Your task to perform on an android device: empty trash in the gmail app Image 0: 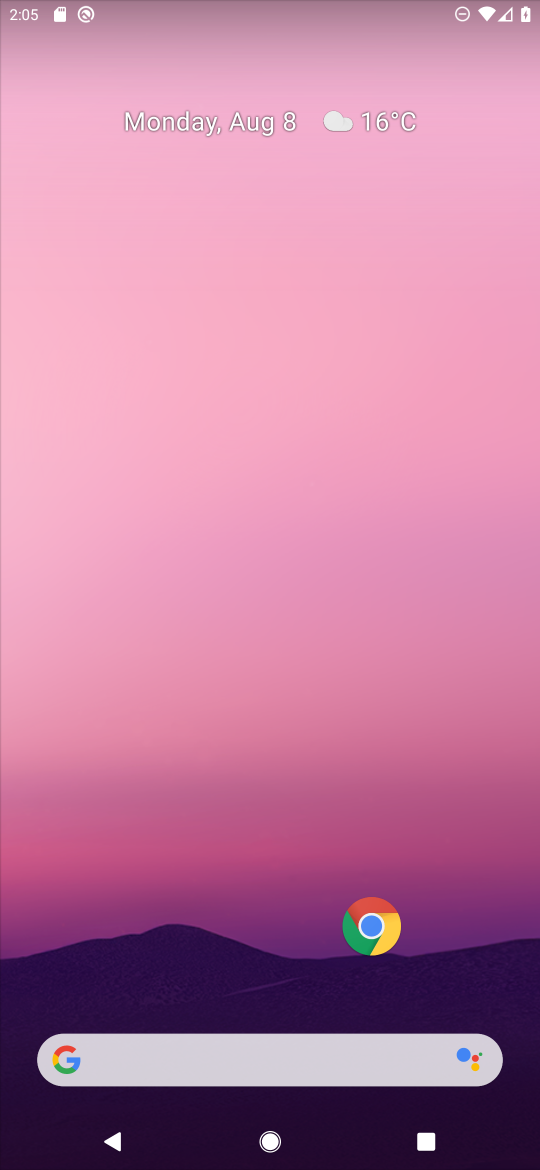
Step 0: drag from (217, 986) to (314, 189)
Your task to perform on an android device: empty trash in the gmail app Image 1: 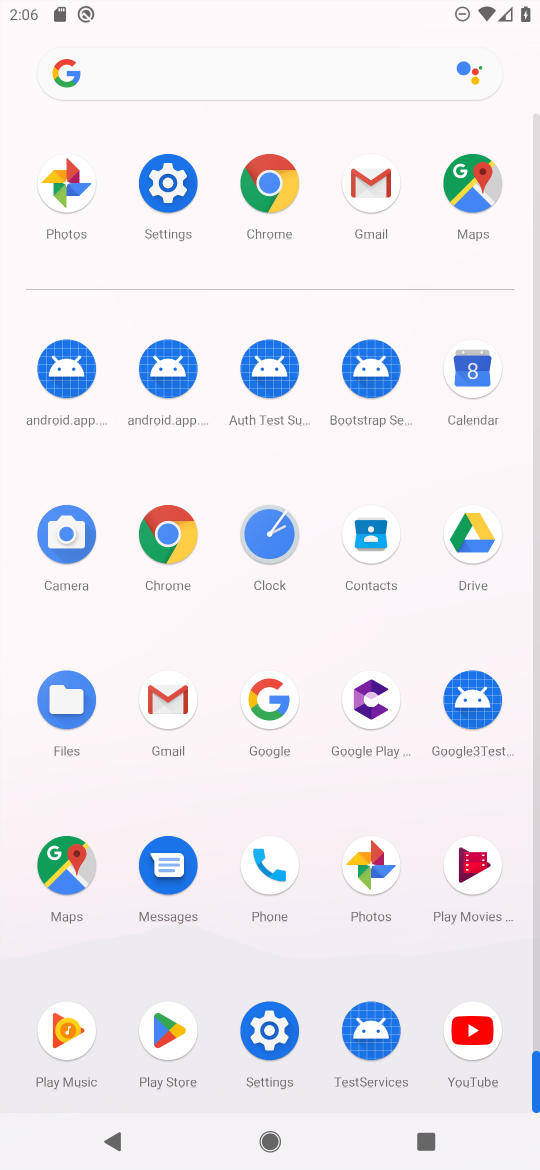
Step 1: click (163, 711)
Your task to perform on an android device: empty trash in the gmail app Image 2: 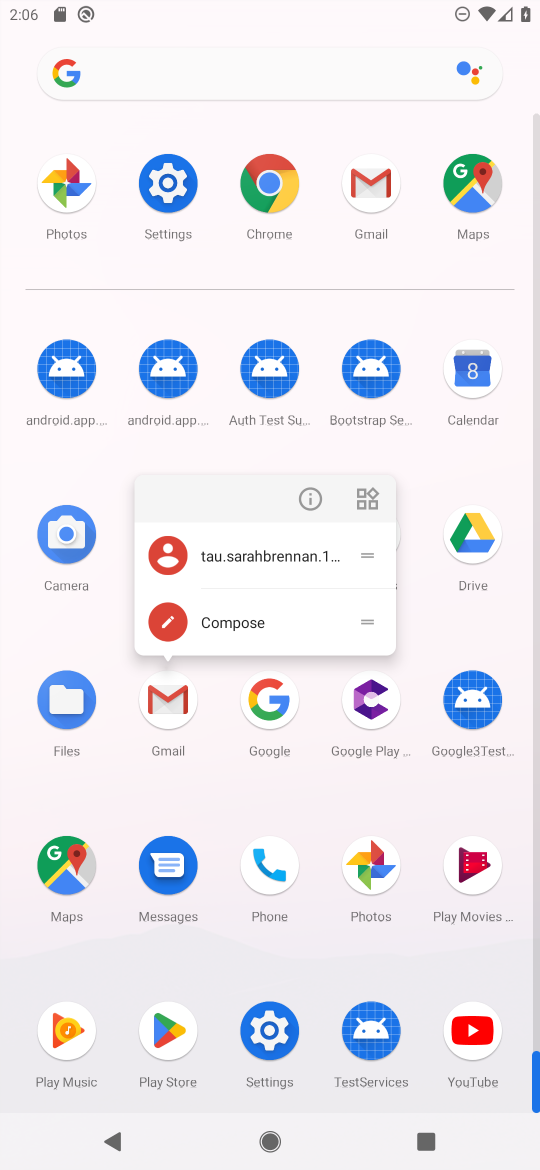
Step 2: click (163, 684)
Your task to perform on an android device: empty trash in the gmail app Image 3: 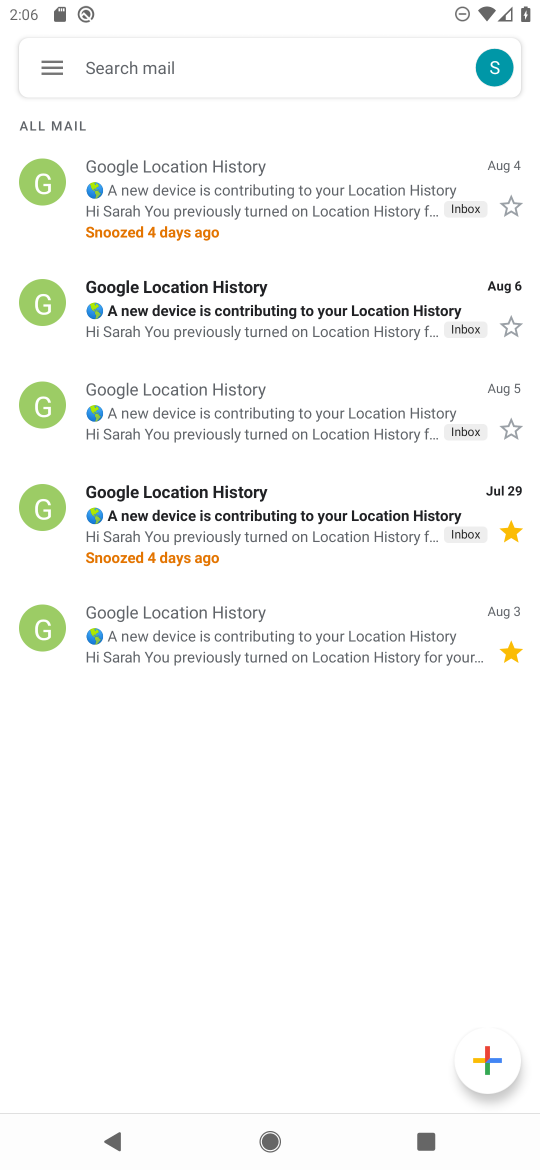
Step 3: click (43, 71)
Your task to perform on an android device: empty trash in the gmail app Image 4: 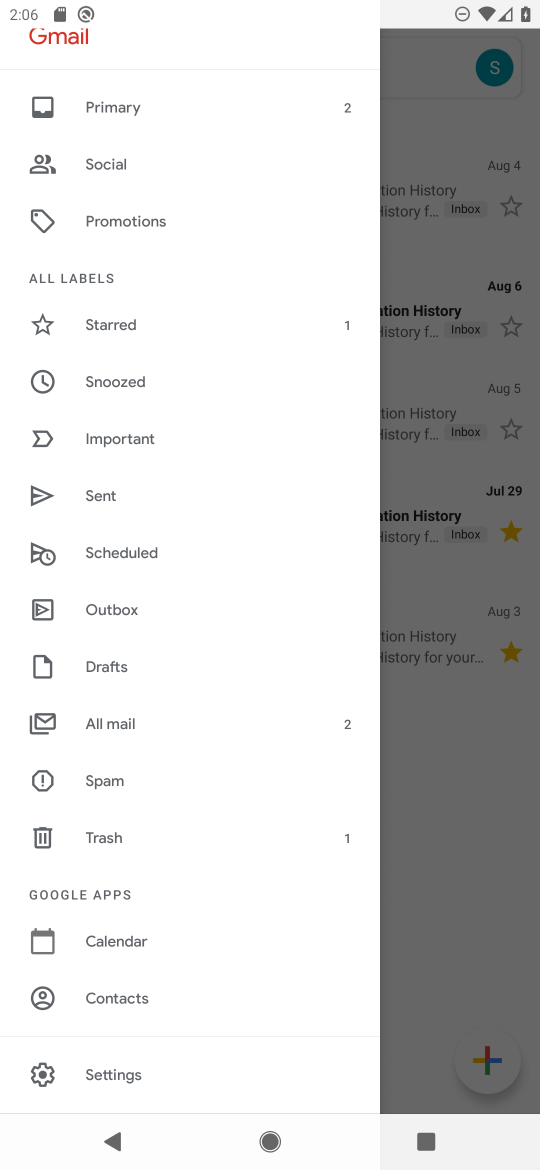
Step 4: click (125, 843)
Your task to perform on an android device: empty trash in the gmail app Image 5: 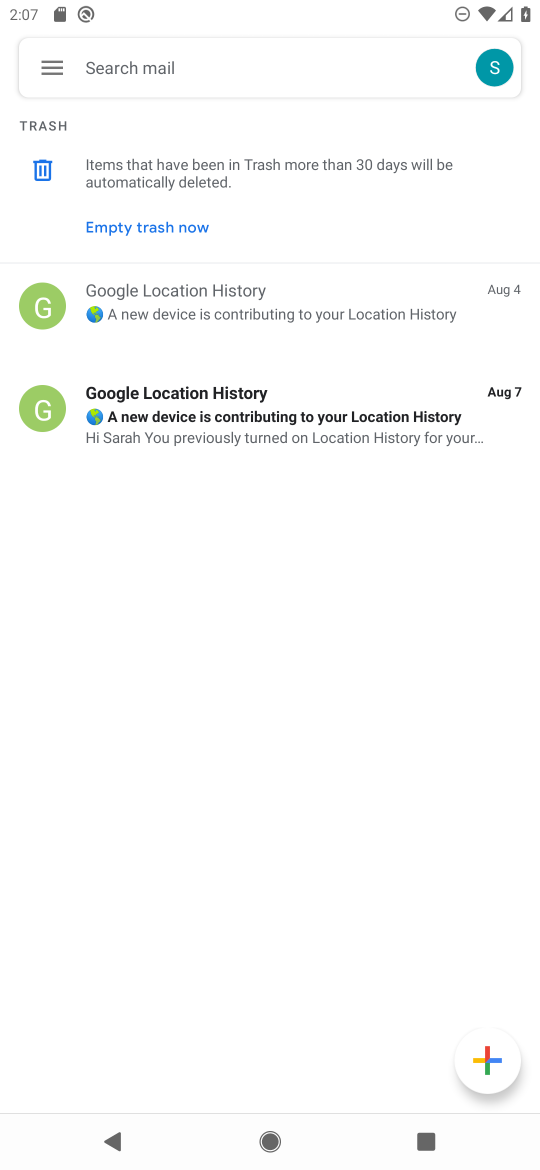
Step 5: click (128, 229)
Your task to perform on an android device: empty trash in the gmail app Image 6: 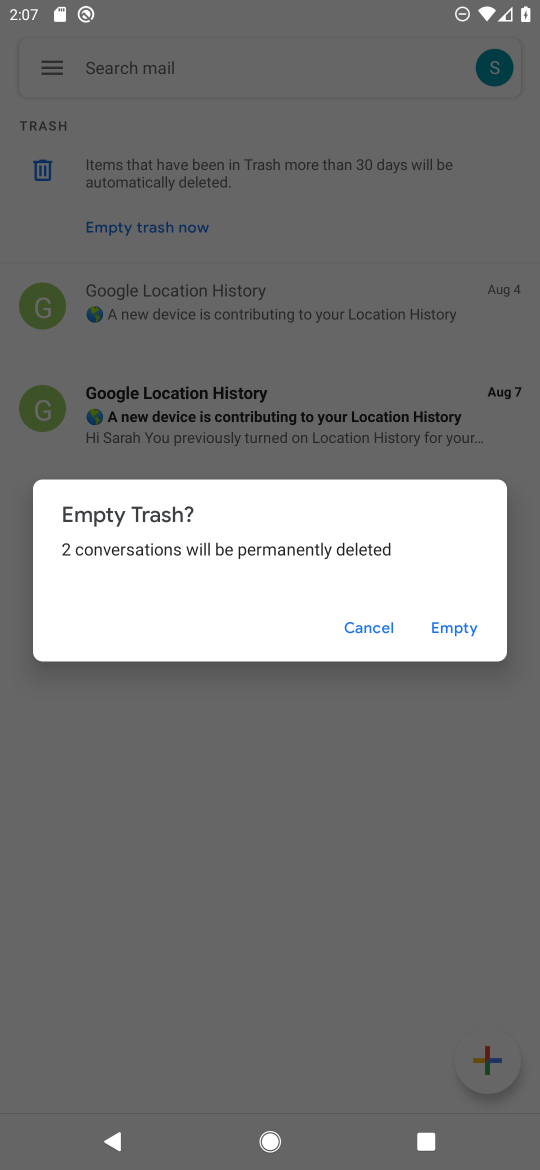
Step 6: click (433, 628)
Your task to perform on an android device: empty trash in the gmail app Image 7: 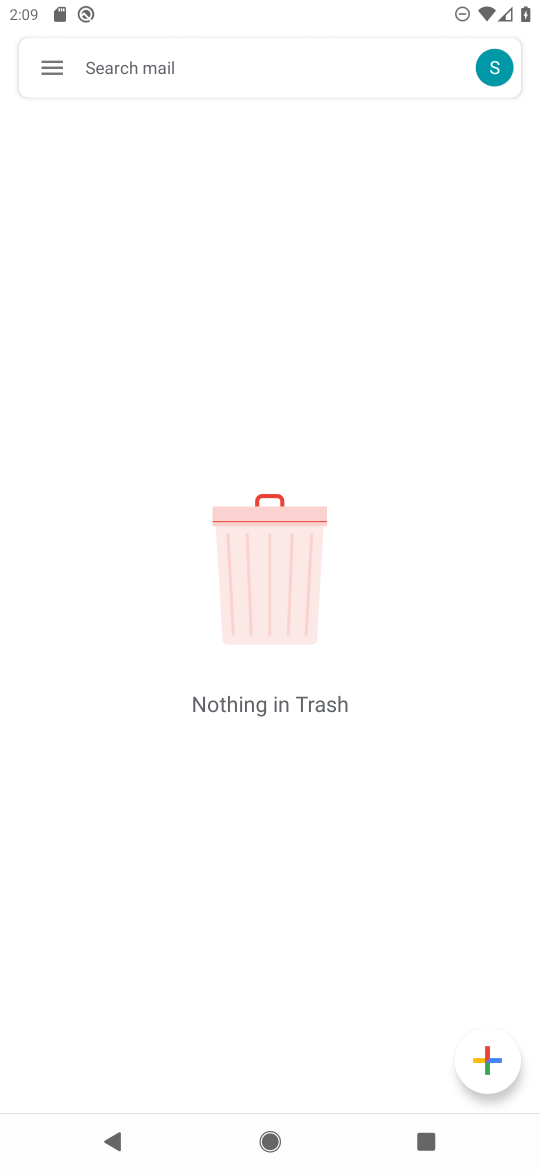
Step 7: task complete